Your task to perform on an android device: toggle sleep mode Image 0: 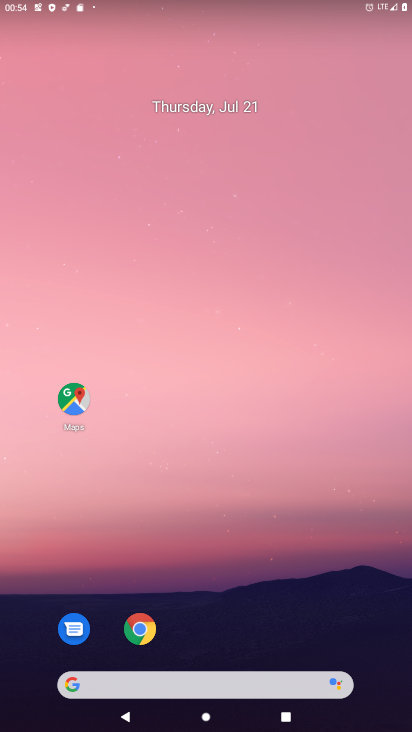
Step 0: click (265, 158)
Your task to perform on an android device: toggle sleep mode Image 1: 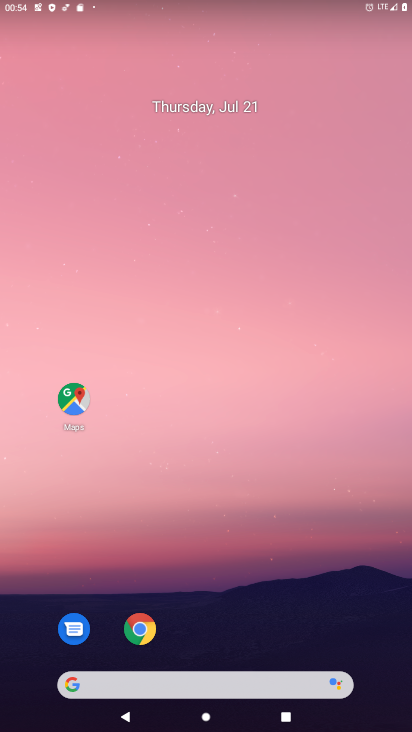
Step 1: drag from (350, 597) to (308, 32)
Your task to perform on an android device: toggle sleep mode Image 2: 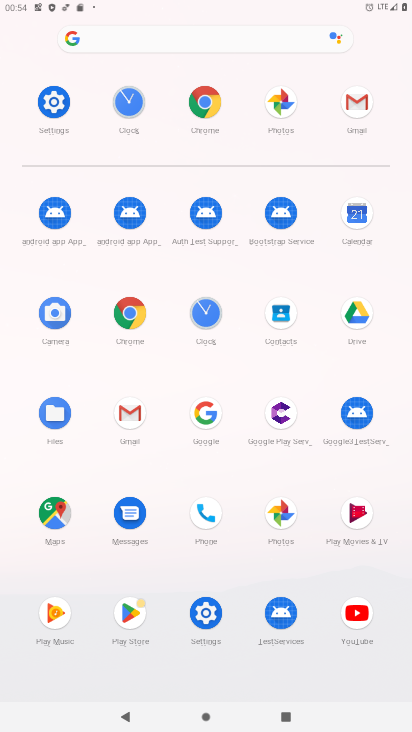
Step 2: click (55, 108)
Your task to perform on an android device: toggle sleep mode Image 3: 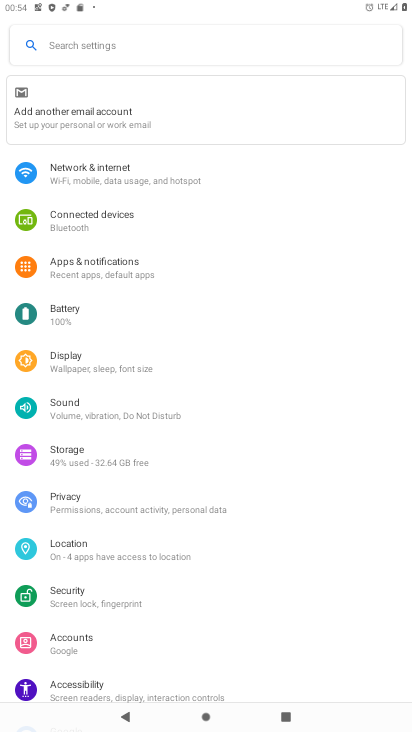
Step 3: click (118, 366)
Your task to perform on an android device: toggle sleep mode Image 4: 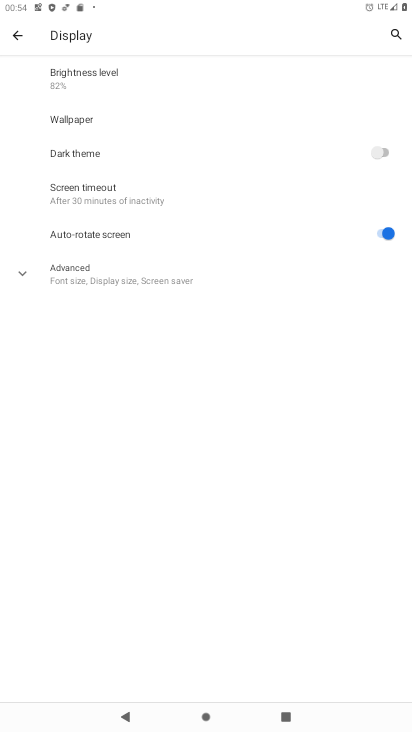
Step 4: click (138, 183)
Your task to perform on an android device: toggle sleep mode Image 5: 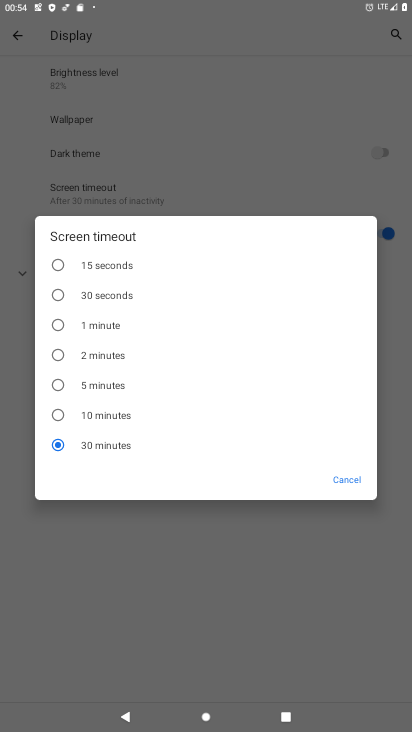
Step 5: click (118, 433)
Your task to perform on an android device: toggle sleep mode Image 6: 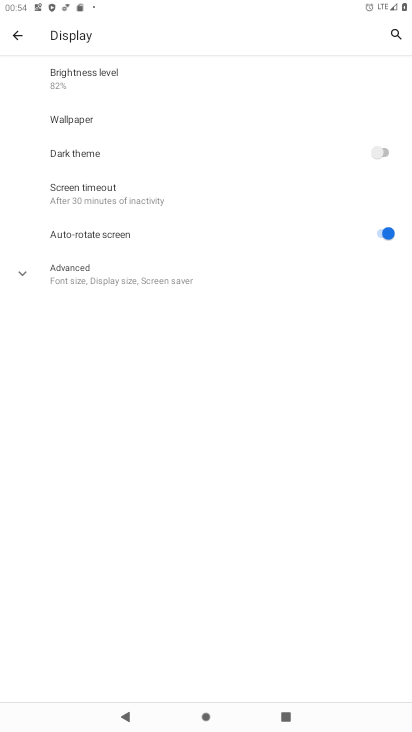
Step 6: click (67, 181)
Your task to perform on an android device: toggle sleep mode Image 7: 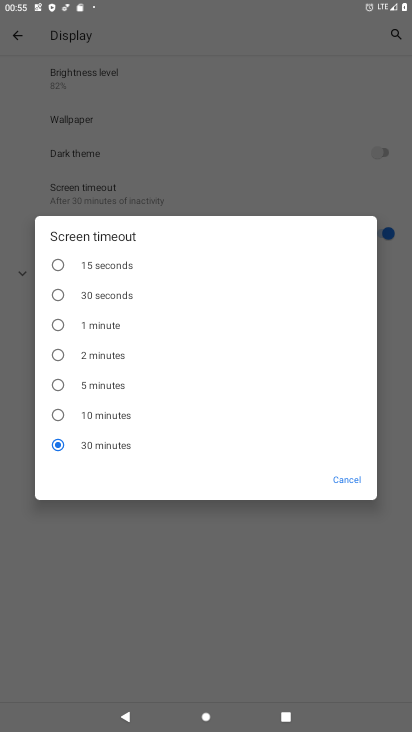
Step 7: click (108, 405)
Your task to perform on an android device: toggle sleep mode Image 8: 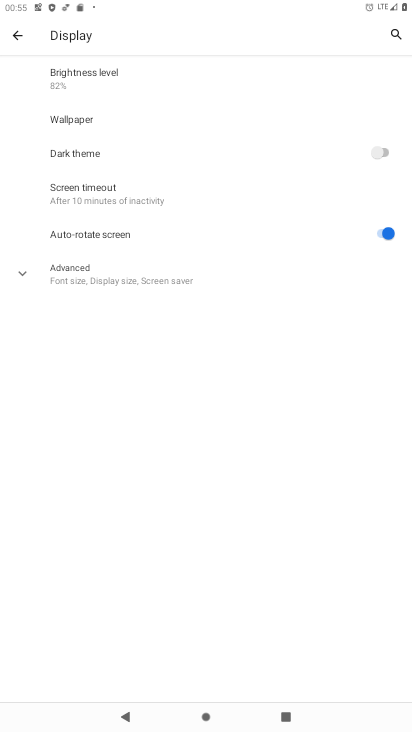
Step 8: task complete